Your task to perform on an android device: Open Android settings Image 0: 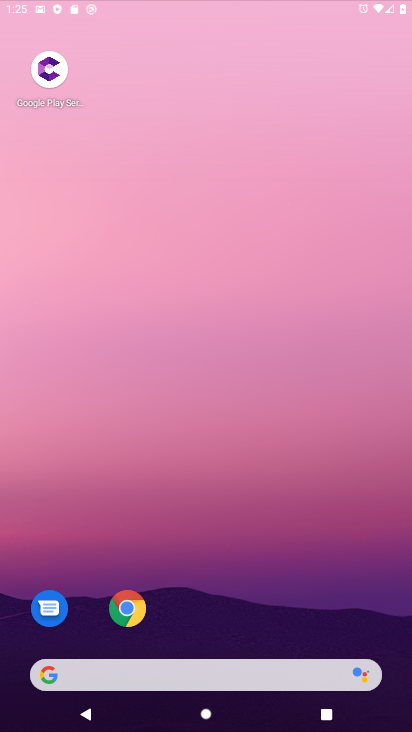
Step 0: drag from (226, 441) to (182, 3)
Your task to perform on an android device: Open Android settings Image 1: 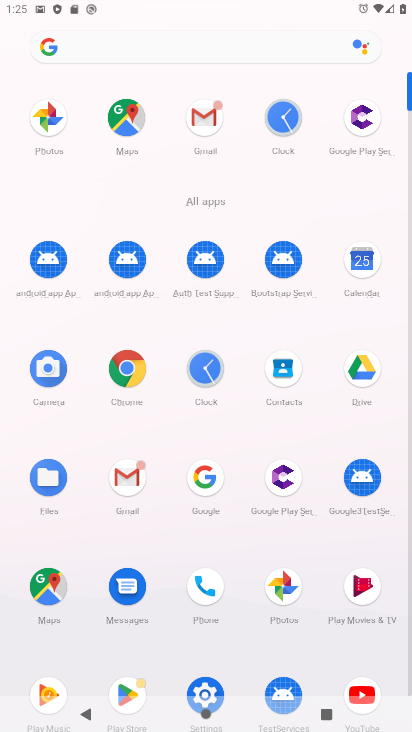
Step 1: click (205, 686)
Your task to perform on an android device: Open Android settings Image 2: 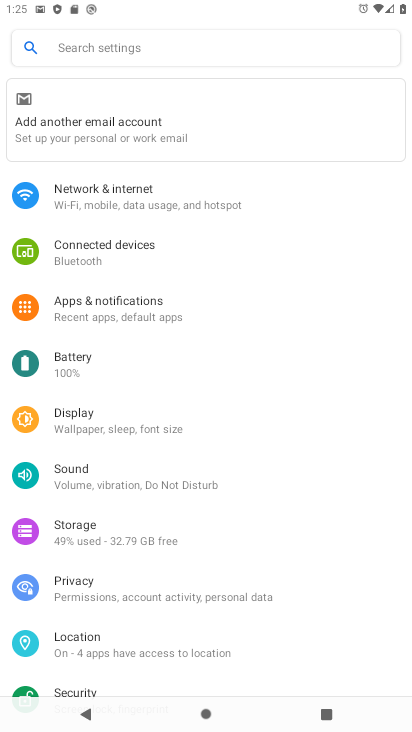
Step 2: task complete